Your task to perform on an android device: Add "macbook" to the cart on ebay, then select checkout. Image 0: 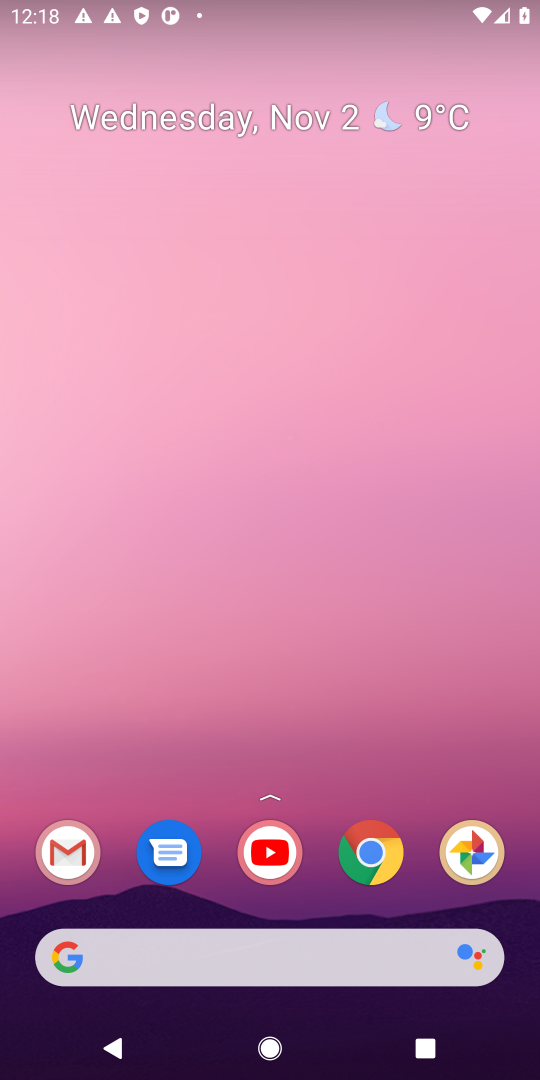
Step 0: drag from (286, 892) to (206, 46)
Your task to perform on an android device: Add "macbook" to the cart on ebay, then select checkout. Image 1: 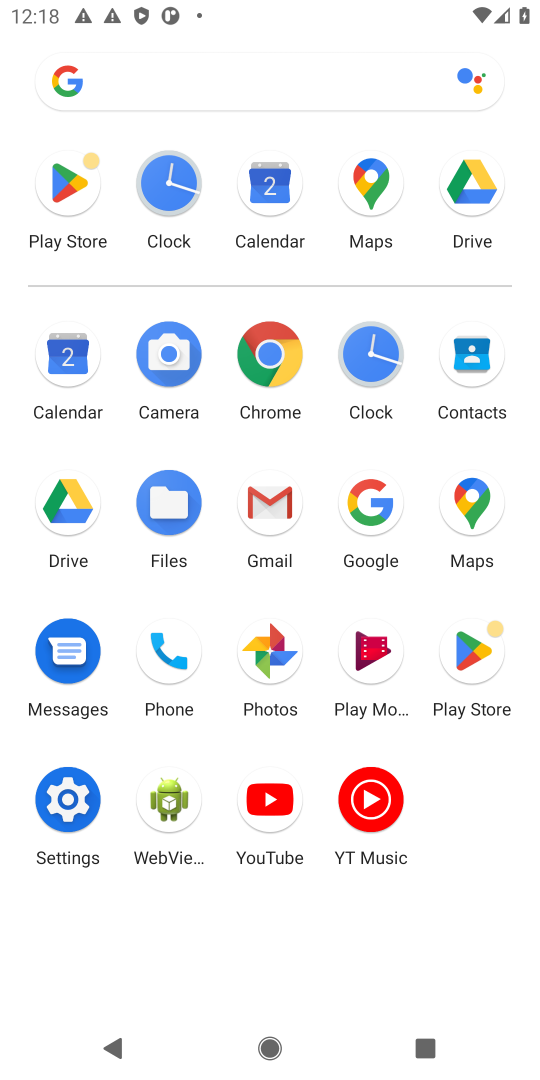
Step 1: click (387, 501)
Your task to perform on an android device: Add "macbook" to the cart on ebay, then select checkout. Image 2: 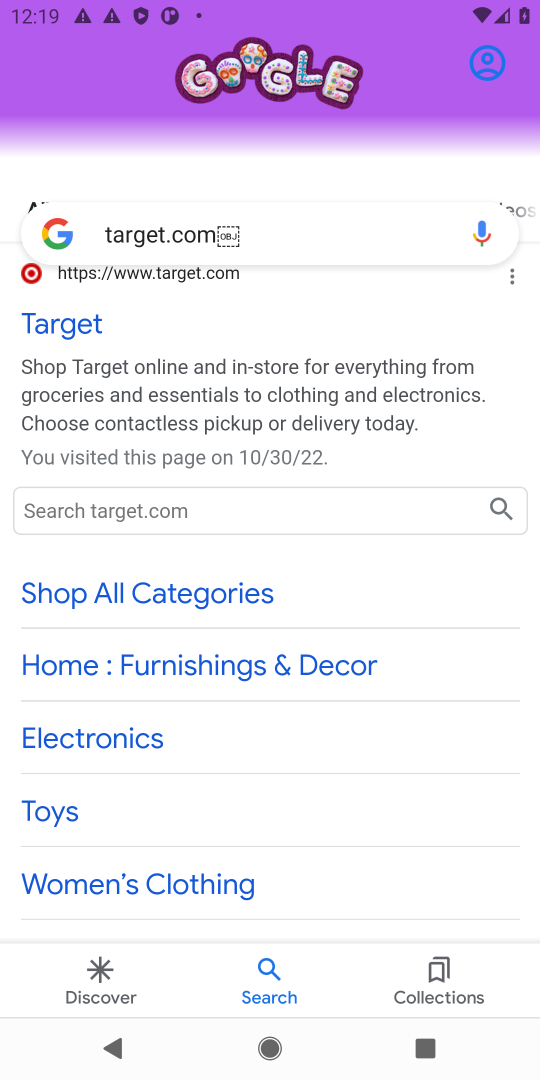
Step 2: click (388, 223)
Your task to perform on an android device: Add "macbook" to the cart on ebay, then select checkout. Image 3: 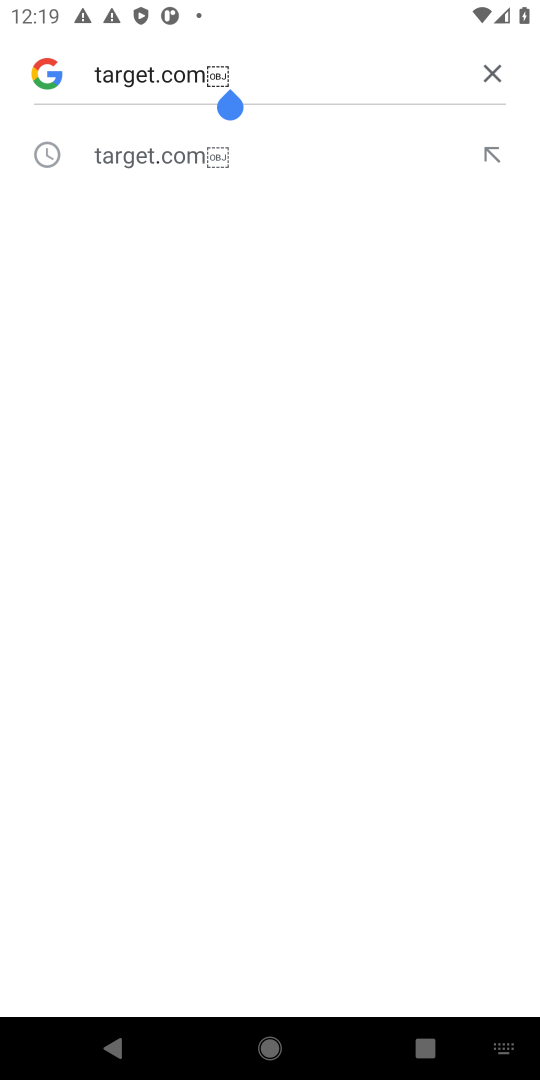
Step 3: click (489, 85)
Your task to perform on an android device: Add "macbook" to the cart on ebay, then select checkout. Image 4: 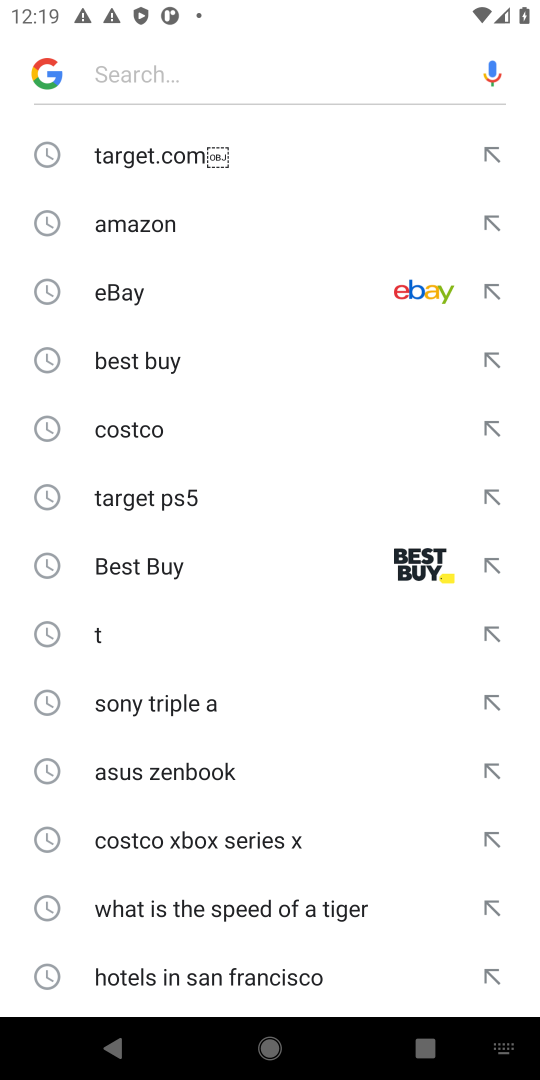
Step 4: type "ebay"
Your task to perform on an android device: Add "macbook" to the cart on ebay, then select checkout. Image 5: 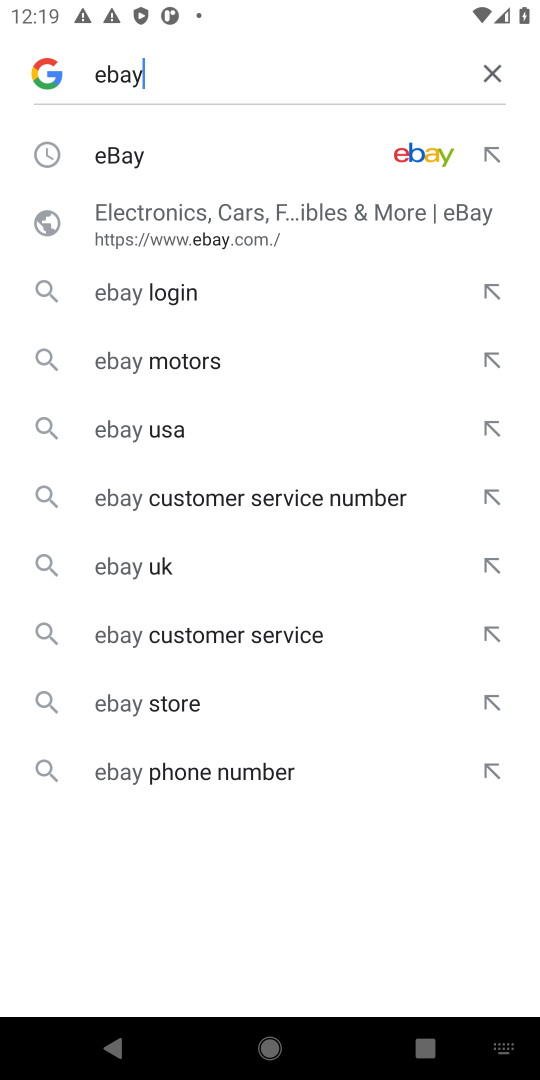
Step 5: click (213, 145)
Your task to perform on an android device: Add "macbook" to the cart on ebay, then select checkout. Image 6: 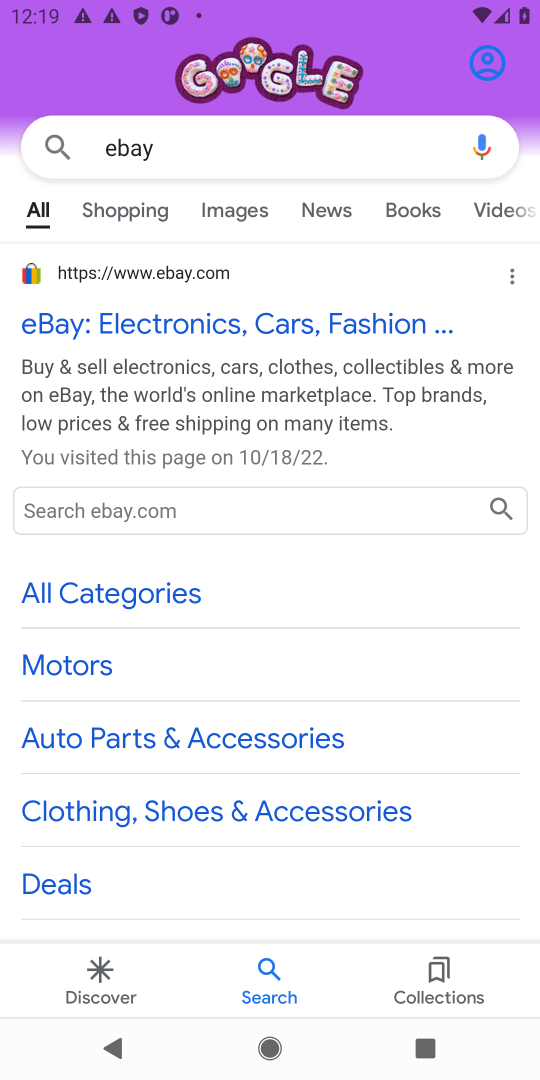
Step 6: click (273, 315)
Your task to perform on an android device: Add "macbook" to the cart on ebay, then select checkout. Image 7: 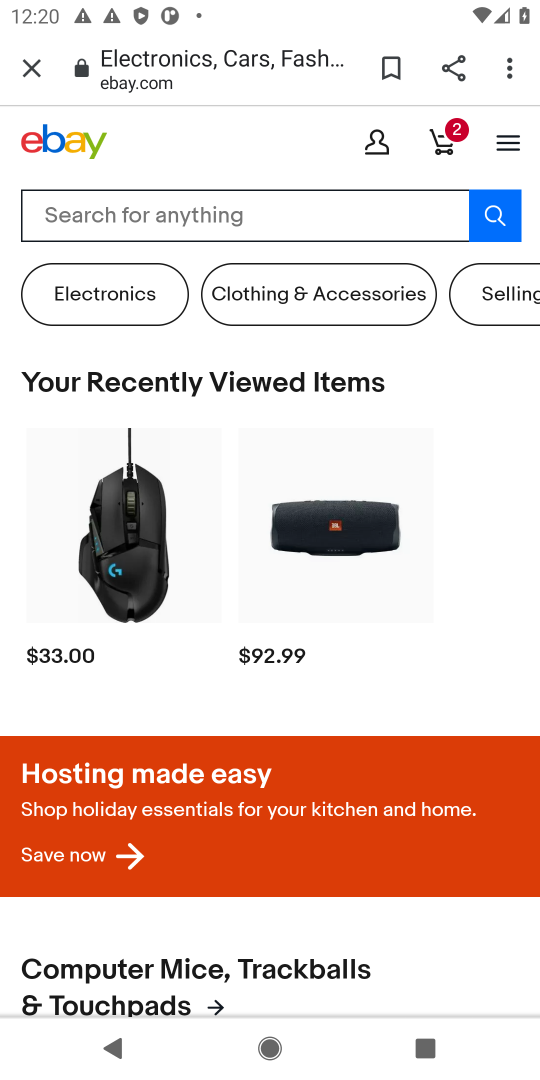
Step 7: click (341, 224)
Your task to perform on an android device: Add "macbook" to the cart on ebay, then select checkout. Image 8: 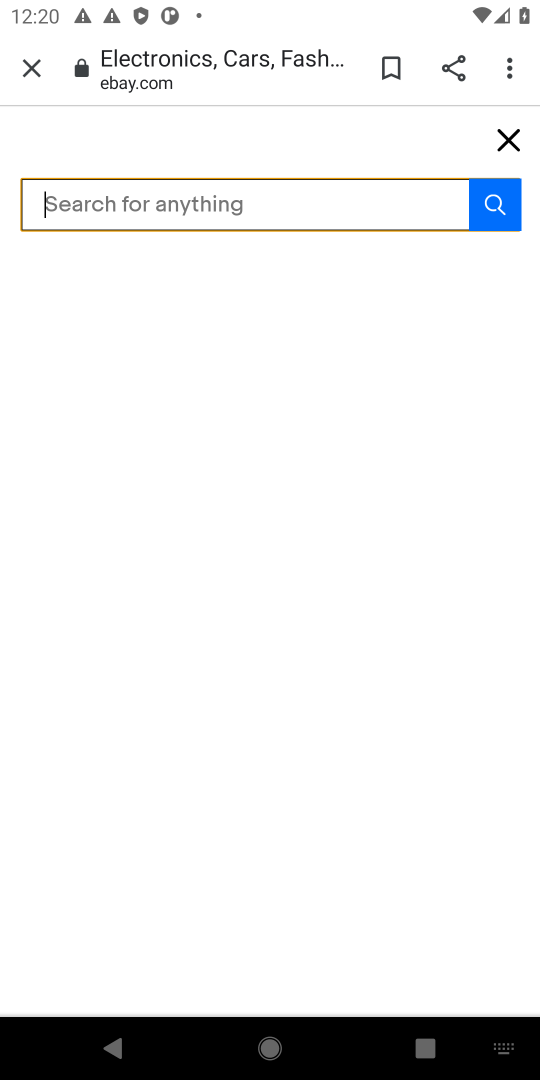
Step 8: type "macbook"
Your task to perform on an android device: Add "macbook" to the cart on ebay, then select checkout. Image 9: 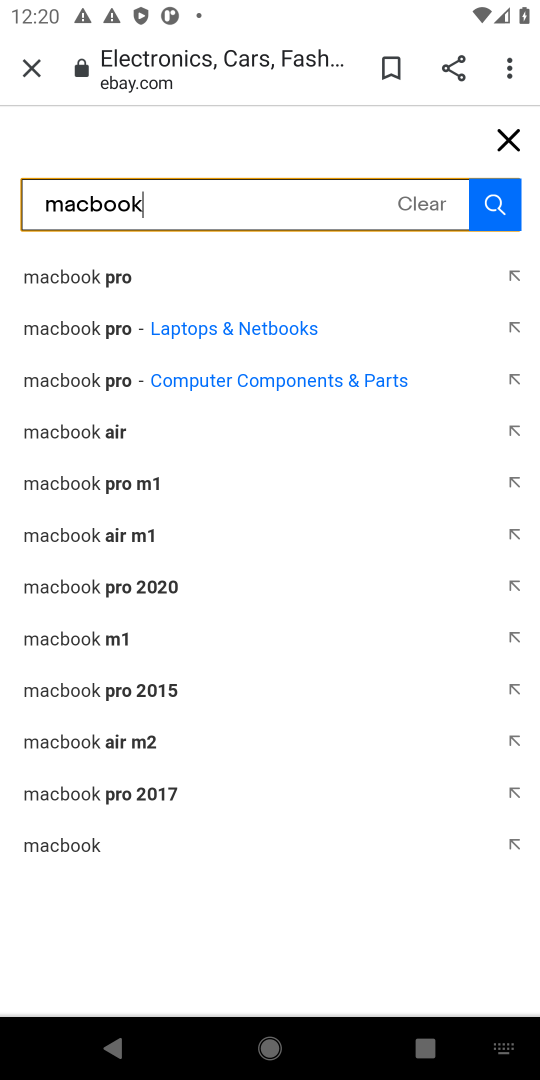
Step 9: click (56, 840)
Your task to perform on an android device: Add "macbook" to the cart on ebay, then select checkout. Image 10: 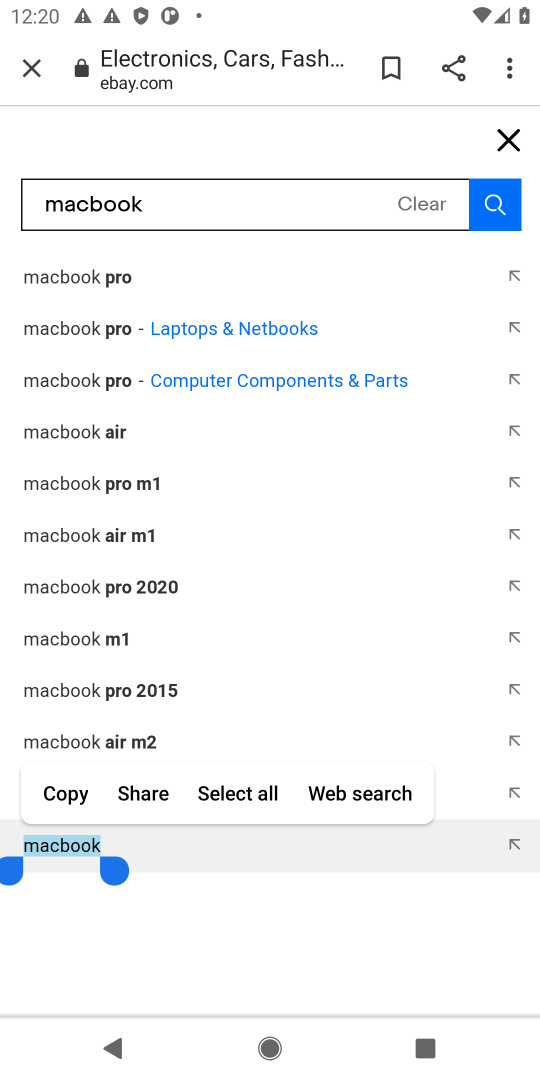
Step 10: click (362, 848)
Your task to perform on an android device: Add "macbook" to the cart on ebay, then select checkout. Image 11: 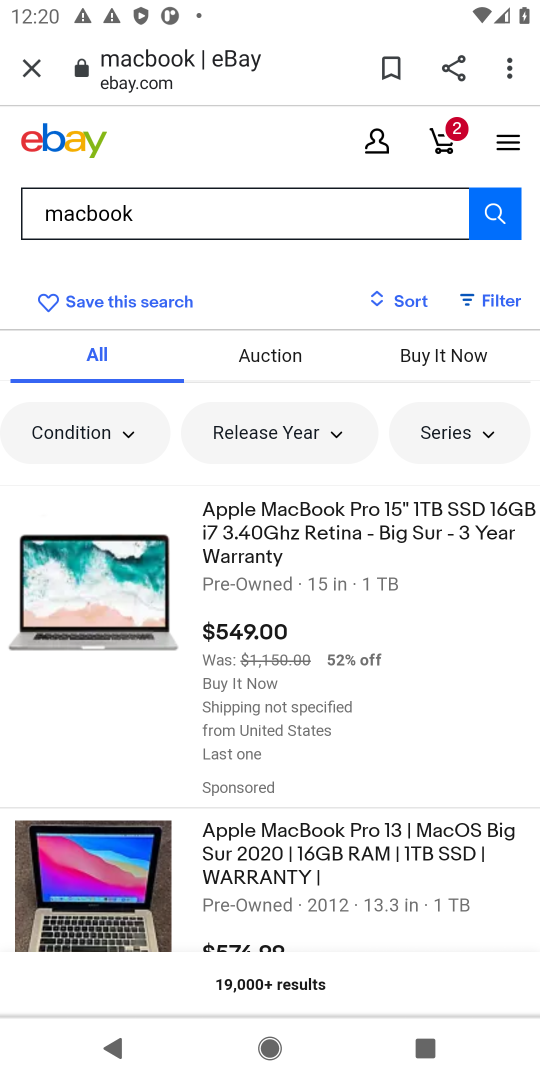
Step 11: click (313, 542)
Your task to perform on an android device: Add "macbook" to the cart on ebay, then select checkout. Image 12: 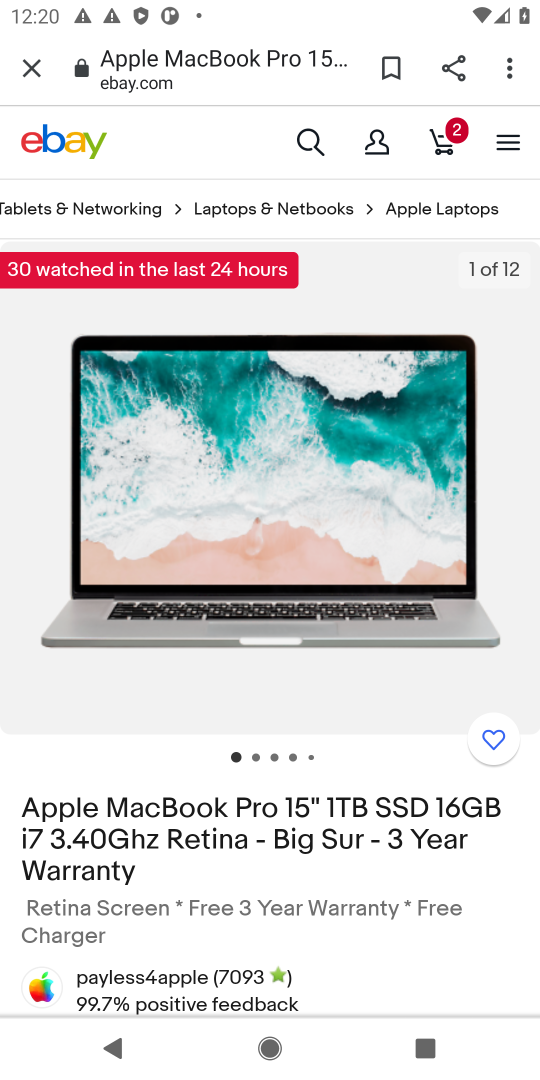
Step 12: drag from (358, 547) to (358, 462)
Your task to perform on an android device: Add "macbook" to the cart on ebay, then select checkout. Image 13: 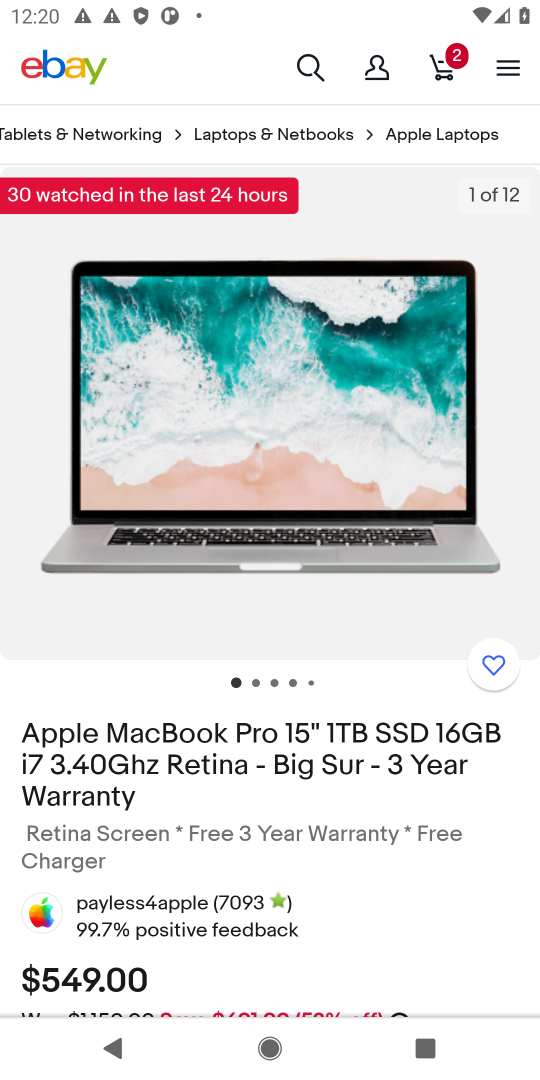
Step 13: drag from (315, 821) to (428, 471)
Your task to perform on an android device: Add "macbook" to the cart on ebay, then select checkout. Image 14: 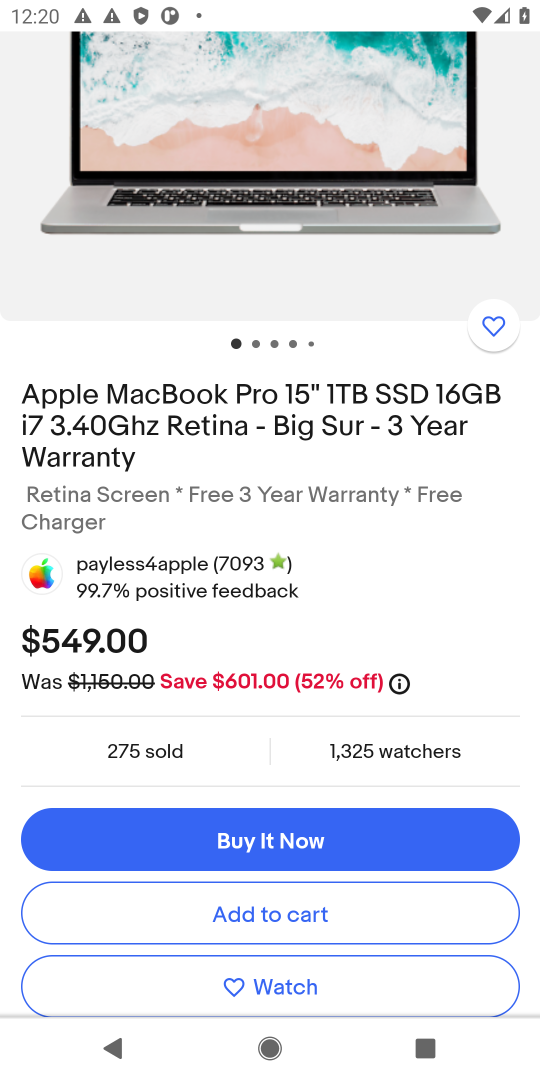
Step 14: click (351, 911)
Your task to perform on an android device: Add "macbook" to the cart on ebay, then select checkout. Image 15: 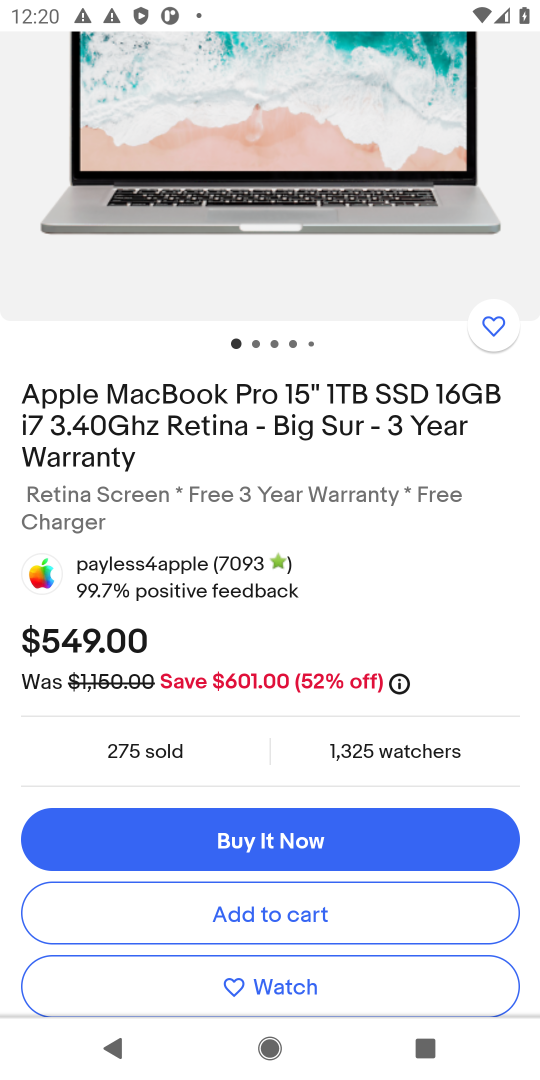
Step 15: click (391, 920)
Your task to perform on an android device: Add "macbook" to the cart on ebay, then select checkout. Image 16: 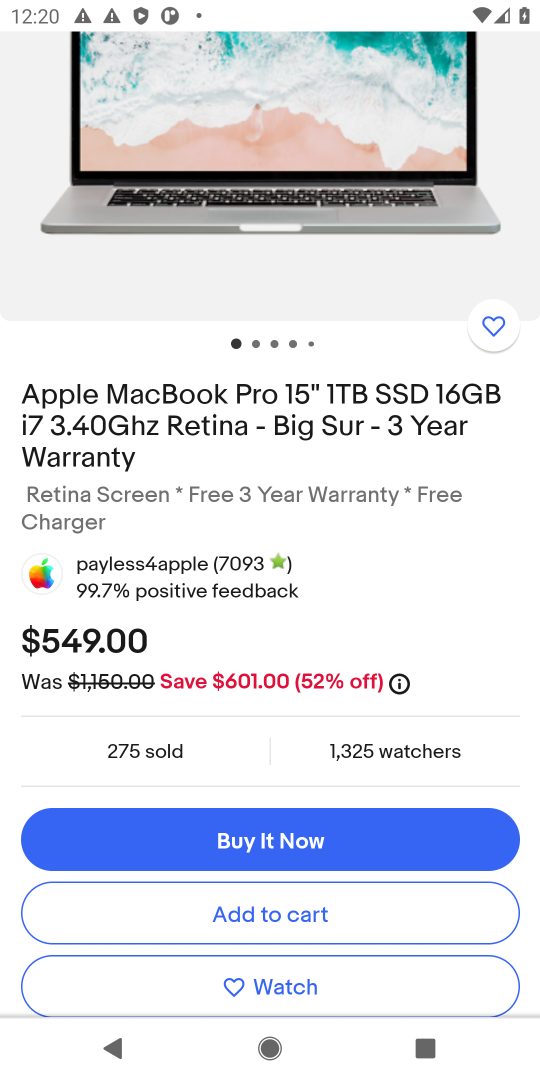
Step 16: drag from (391, 918) to (387, 453)
Your task to perform on an android device: Add "macbook" to the cart on ebay, then select checkout. Image 17: 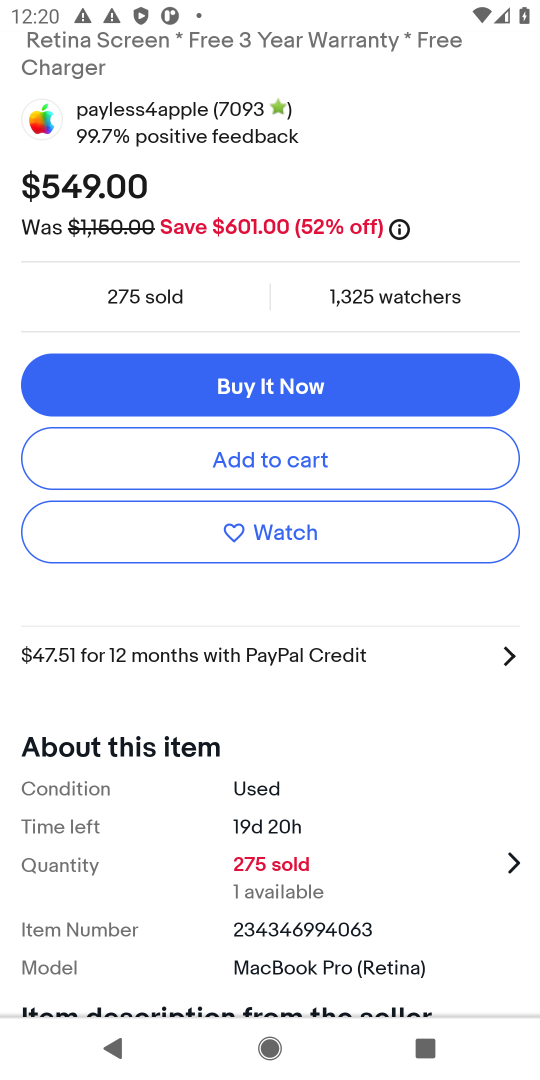
Step 17: click (315, 465)
Your task to perform on an android device: Add "macbook" to the cart on ebay, then select checkout. Image 18: 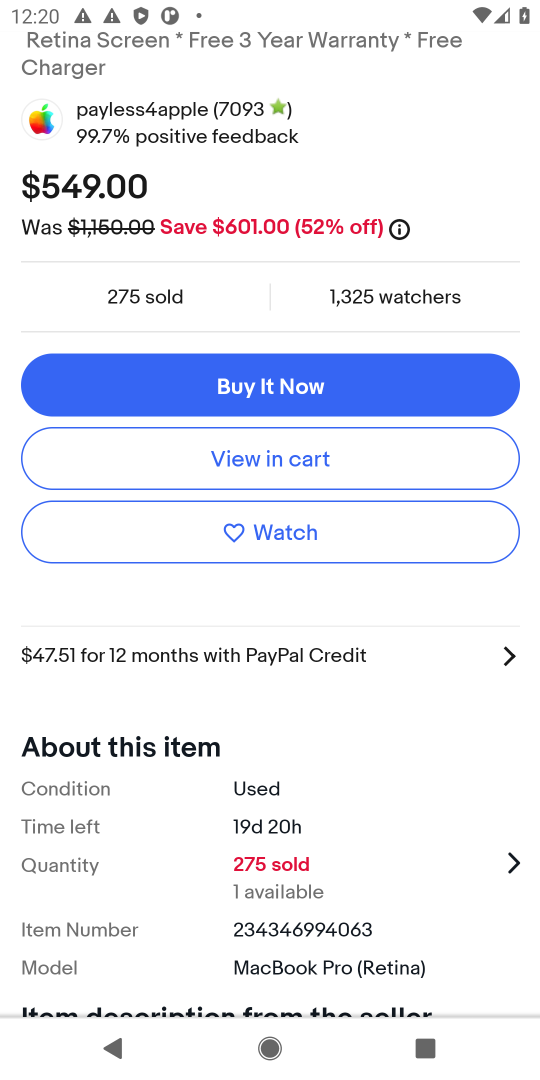
Step 18: drag from (416, 306) to (421, 630)
Your task to perform on an android device: Add "macbook" to the cart on ebay, then select checkout. Image 19: 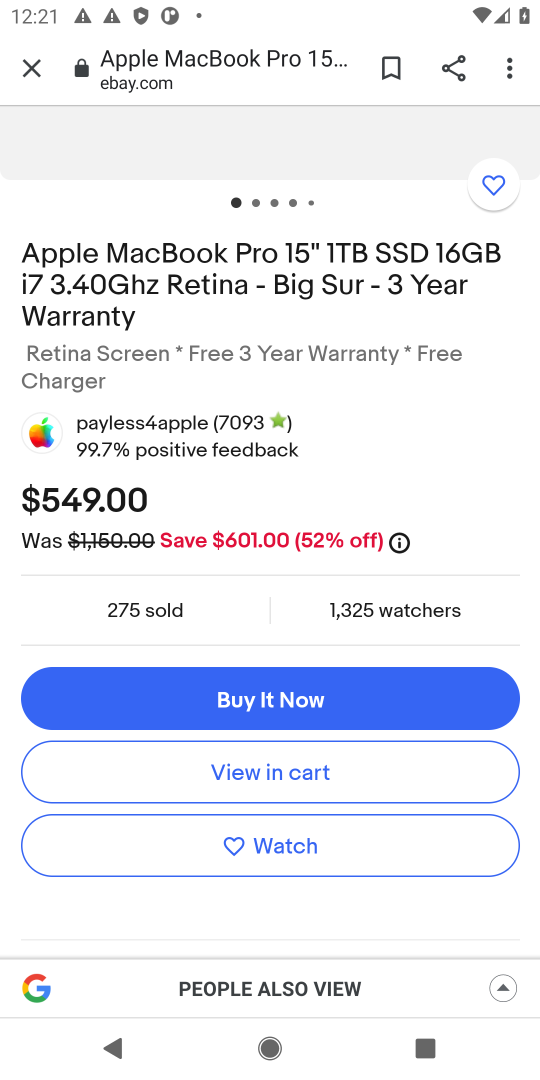
Step 19: click (329, 782)
Your task to perform on an android device: Add "macbook" to the cart on ebay, then select checkout. Image 20: 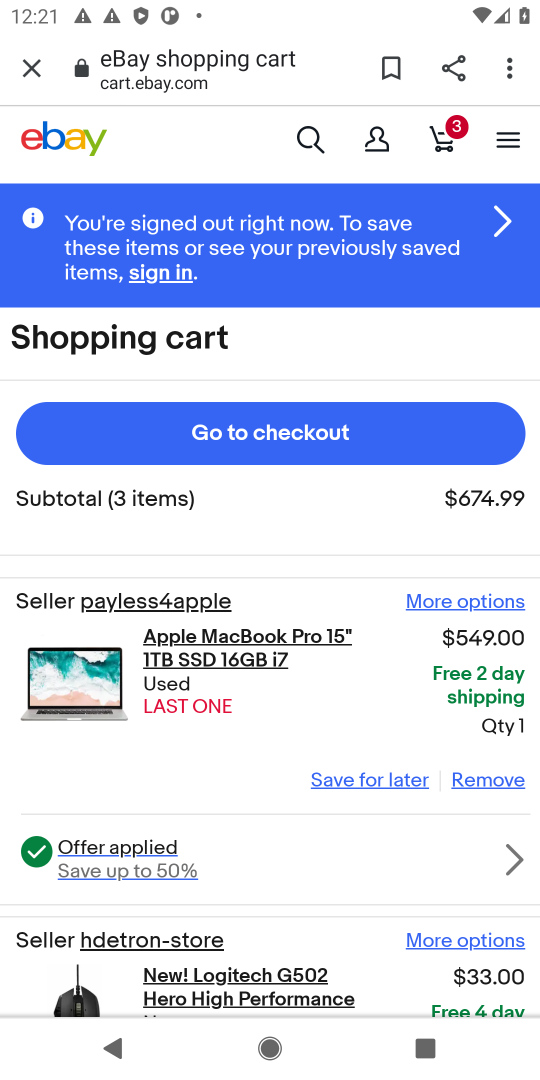
Step 20: click (433, 441)
Your task to perform on an android device: Add "macbook" to the cart on ebay, then select checkout. Image 21: 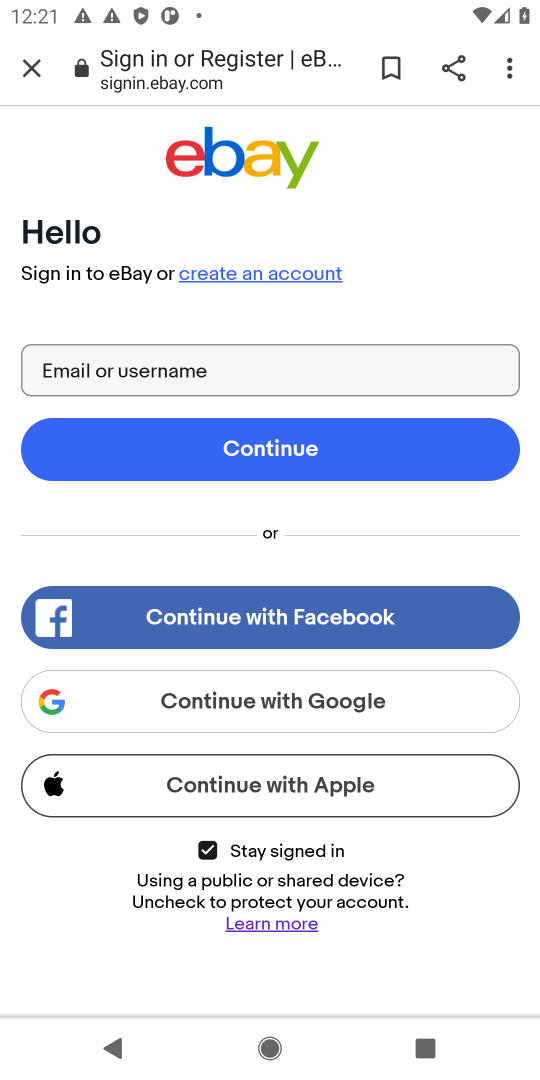
Step 21: task complete